Your task to perform on an android device: find snoozed emails in the gmail app Image 0: 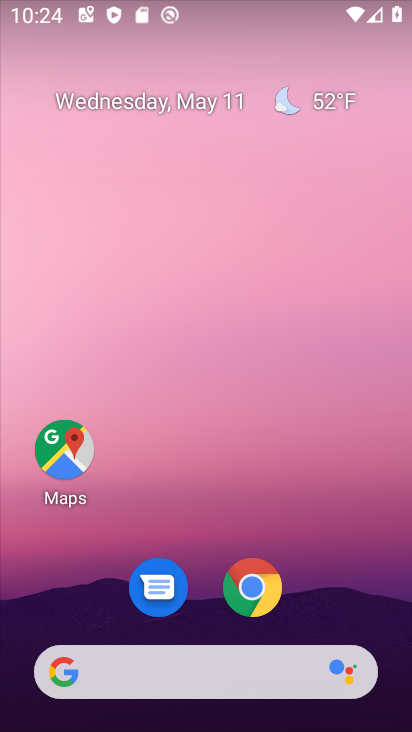
Step 0: drag from (225, 692) to (253, 292)
Your task to perform on an android device: find snoozed emails in the gmail app Image 1: 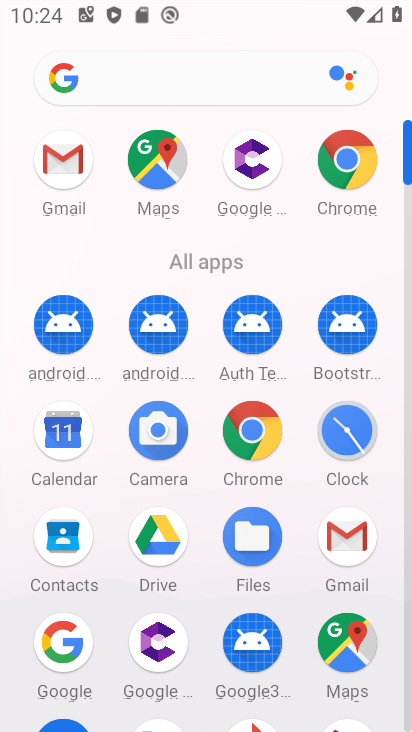
Step 1: click (330, 560)
Your task to perform on an android device: find snoozed emails in the gmail app Image 2: 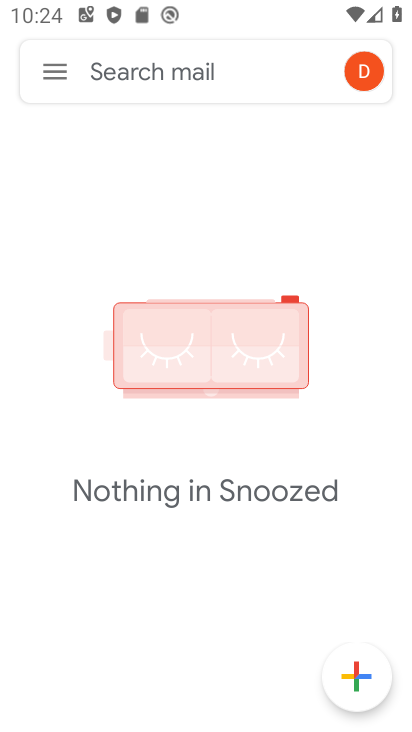
Step 2: click (49, 74)
Your task to perform on an android device: find snoozed emails in the gmail app Image 3: 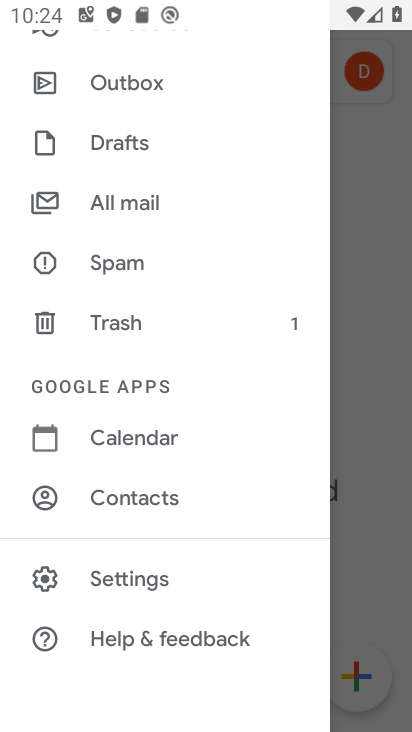
Step 3: drag from (129, 215) to (174, 453)
Your task to perform on an android device: find snoozed emails in the gmail app Image 4: 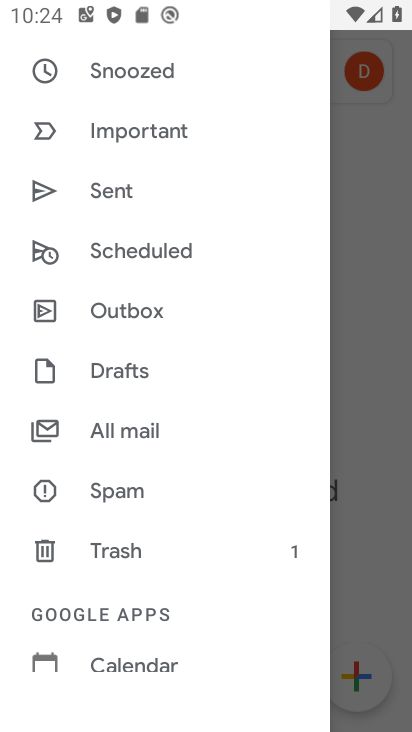
Step 4: click (143, 71)
Your task to perform on an android device: find snoozed emails in the gmail app Image 5: 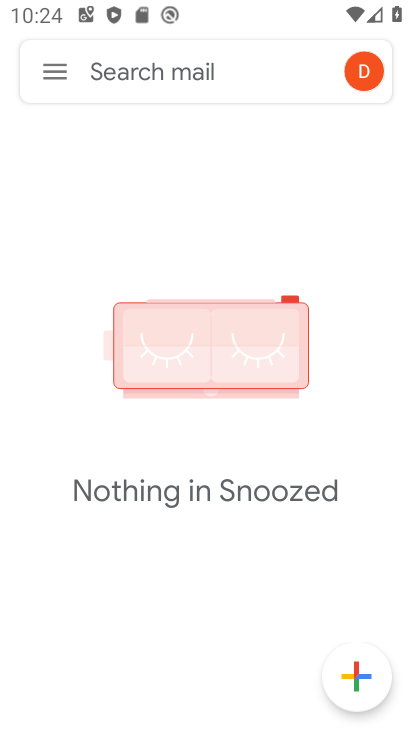
Step 5: task complete